Your task to perform on an android device: toggle data saver in the chrome app Image 0: 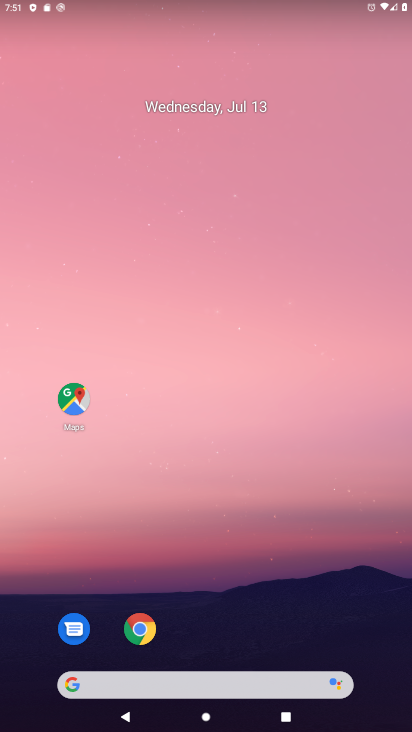
Step 0: click (71, 418)
Your task to perform on an android device: toggle data saver in the chrome app Image 1: 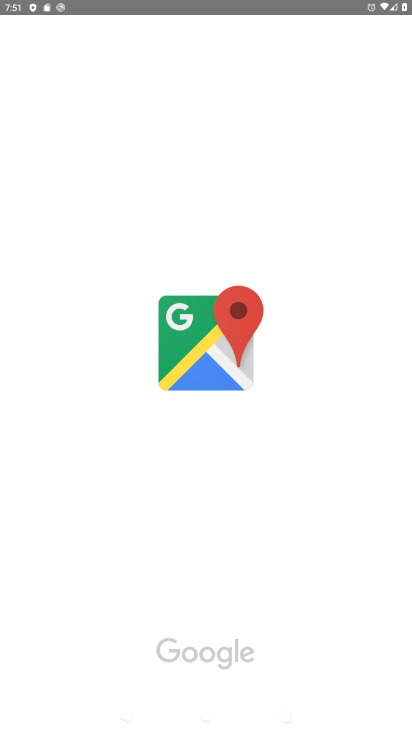
Step 1: press home button
Your task to perform on an android device: toggle data saver in the chrome app Image 2: 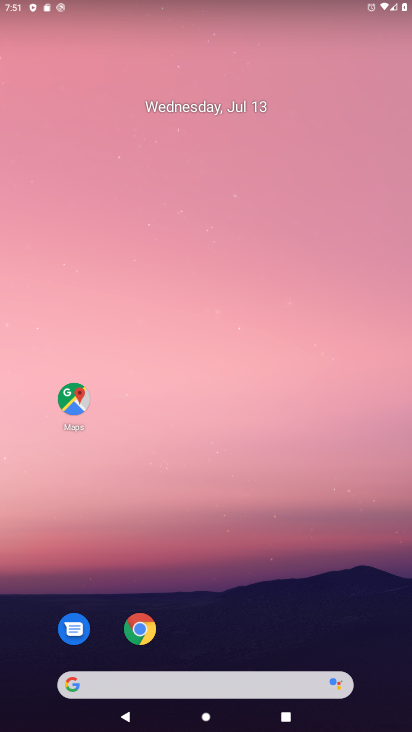
Step 2: click (143, 632)
Your task to perform on an android device: toggle data saver in the chrome app Image 3: 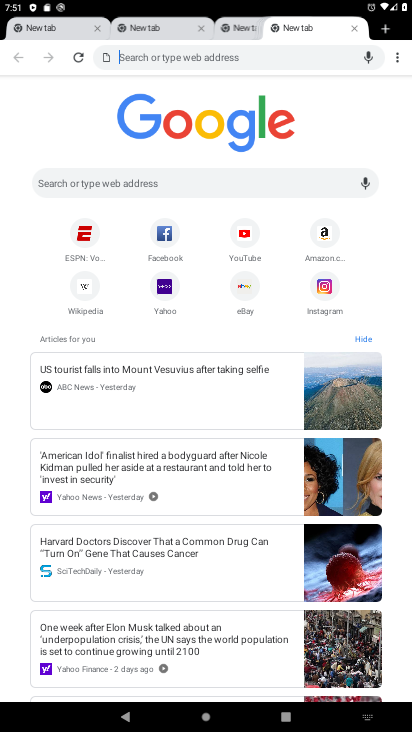
Step 3: click (392, 51)
Your task to perform on an android device: toggle data saver in the chrome app Image 4: 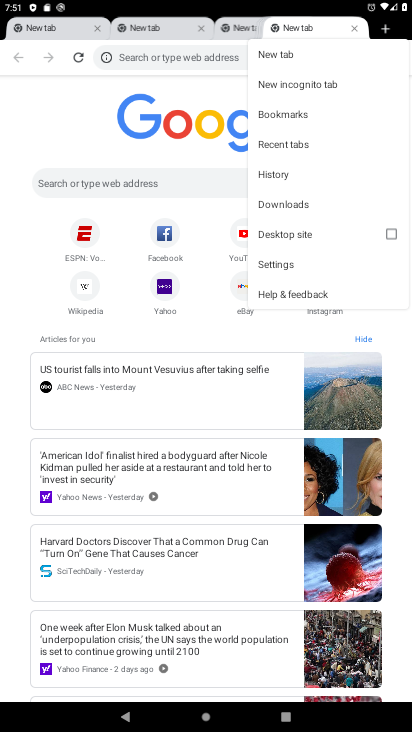
Step 4: click (277, 260)
Your task to perform on an android device: toggle data saver in the chrome app Image 5: 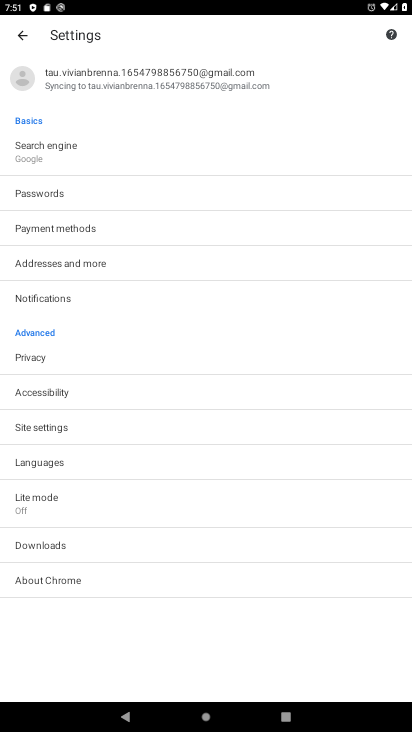
Step 5: task complete